Your task to perform on an android device: remove spam from my inbox in the gmail app Image 0: 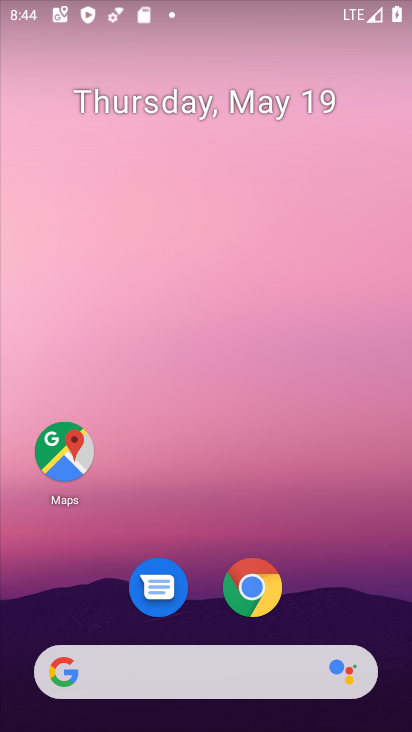
Step 0: drag from (325, 523) to (236, 36)
Your task to perform on an android device: remove spam from my inbox in the gmail app Image 1: 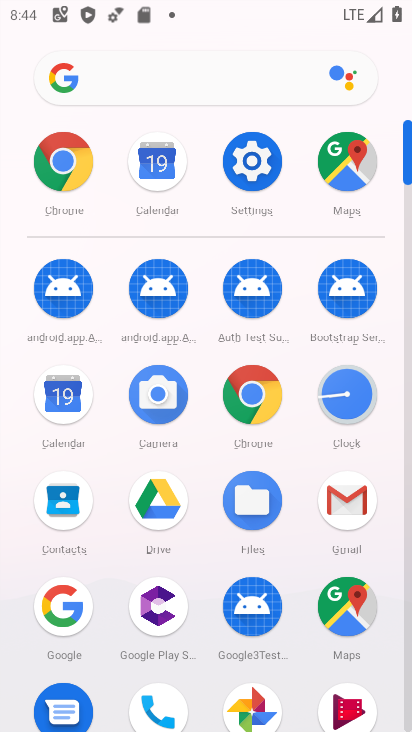
Step 1: drag from (17, 572) to (9, 258)
Your task to perform on an android device: remove spam from my inbox in the gmail app Image 2: 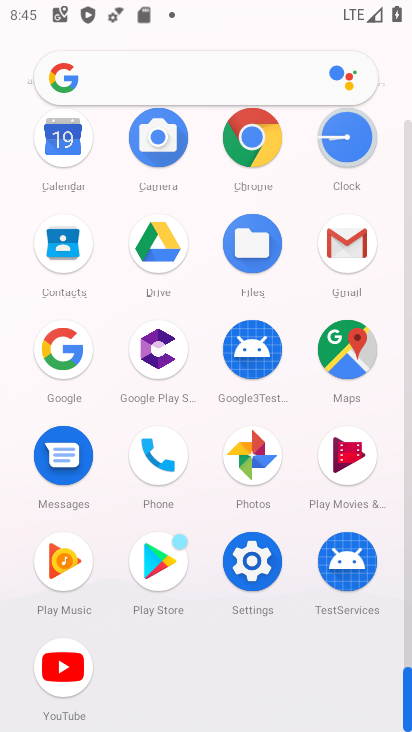
Step 2: click (348, 238)
Your task to perform on an android device: remove spam from my inbox in the gmail app Image 3: 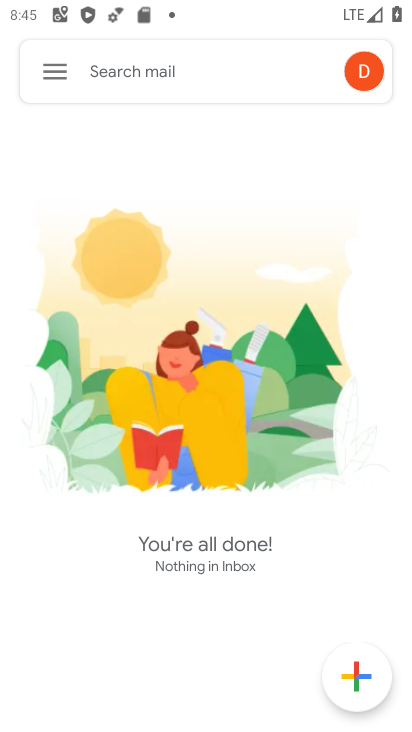
Step 3: click (53, 75)
Your task to perform on an android device: remove spam from my inbox in the gmail app Image 4: 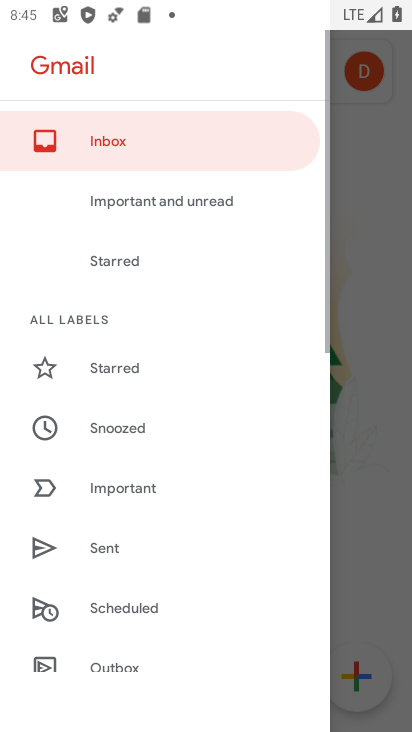
Step 4: drag from (165, 616) to (158, 213)
Your task to perform on an android device: remove spam from my inbox in the gmail app Image 5: 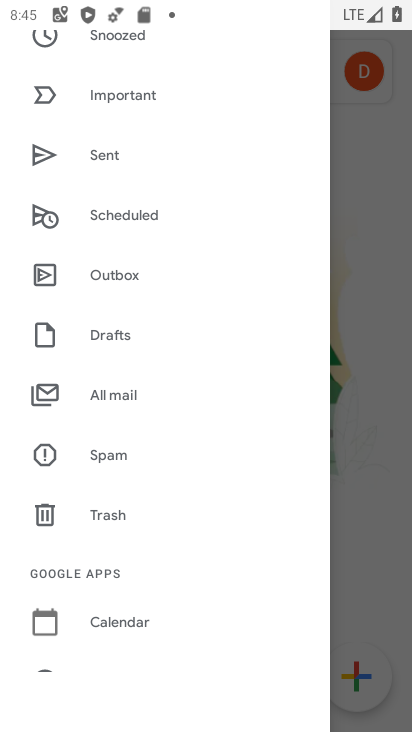
Step 5: drag from (129, 570) to (131, 168)
Your task to perform on an android device: remove spam from my inbox in the gmail app Image 6: 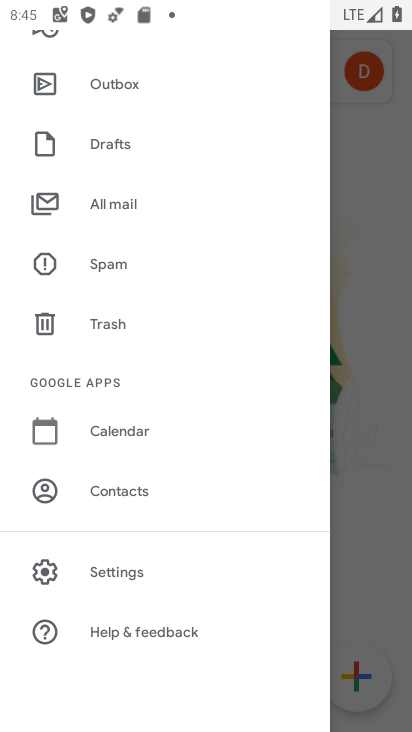
Step 6: click (123, 262)
Your task to perform on an android device: remove spam from my inbox in the gmail app Image 7: 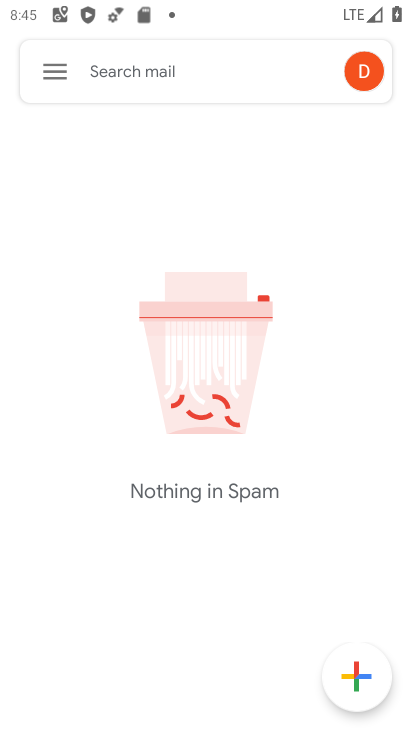
Step 7: click (44, 58)
Your task to perform on an android device: remove spam from my inbox in the gmail app Image 8: 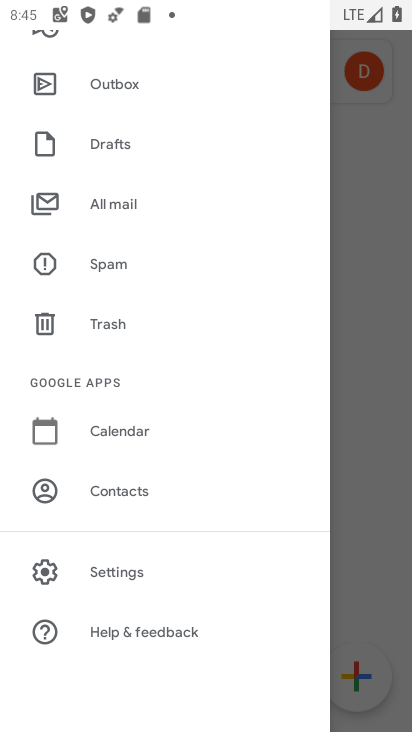
Step 8: click (133, 261)
Your task to perform on an android device: remove spam from my inbox in the gmail app Image 9: 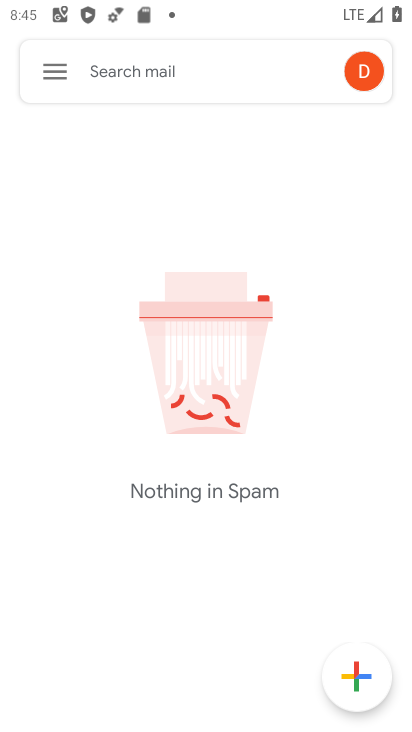
Step 9: task complete